Your task to perform on an android device: toggle pop-ups in chrome Image 0: 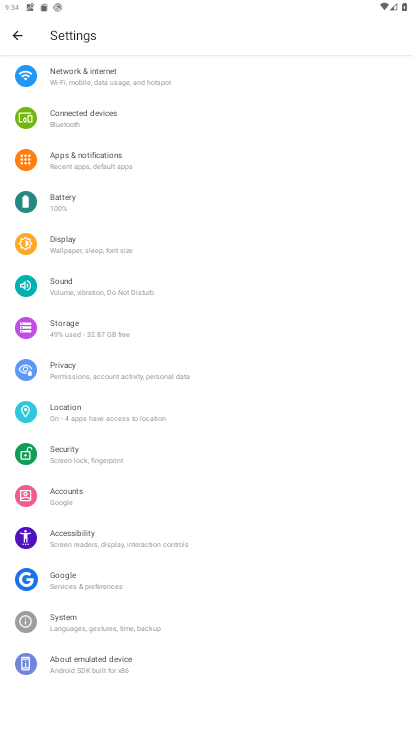
Step 0: press home button
Your task to perform on an android device: toggle pop-ups in chrome Image 1: 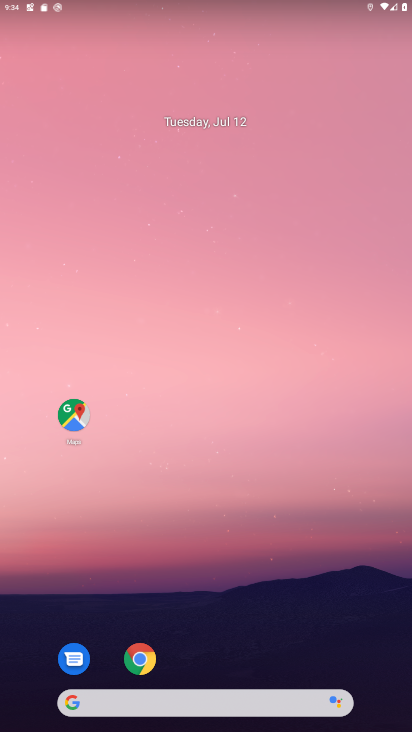
Step 1: drag from (234, 660) to (280, 153)
Your task to perform on an android device: toggle pop-ups in chrome Image 2: 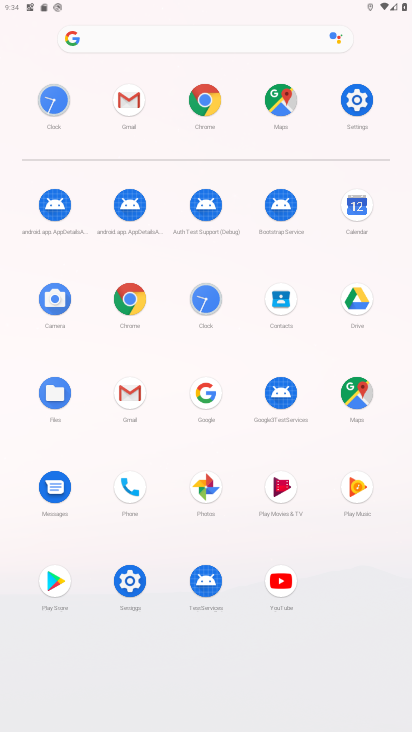
Step 2: click (125, 298)
Your task to perform on an android device: toggle pop-ups in chrome Image 3: 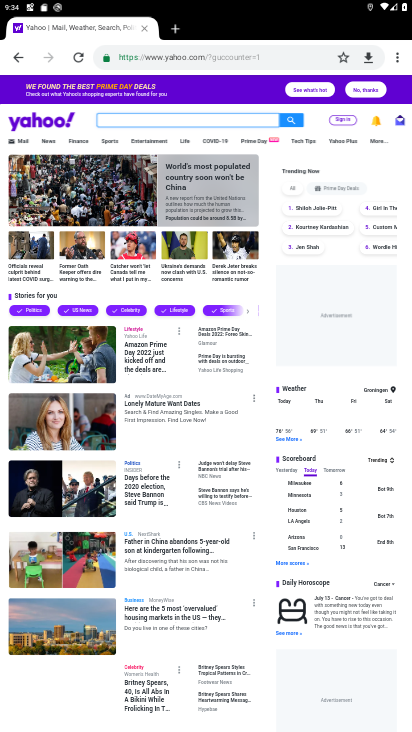
Step 3: drag from (395, 61) to (282, 384)
Your task to perform on an android device: toggle pop-ups in chrome Image 4: 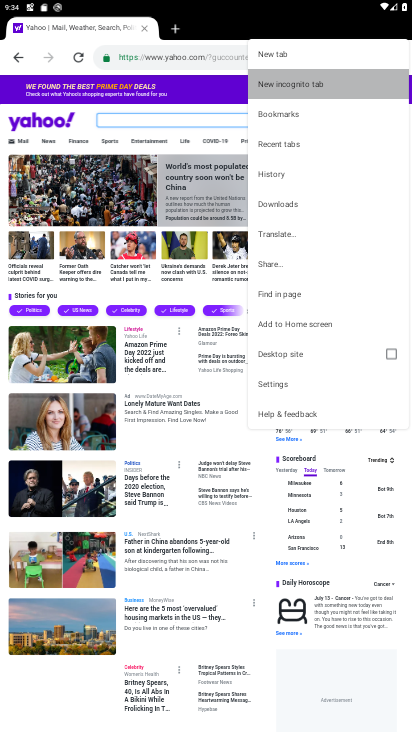
Step 4: drag from (394, 69) to (282, 384)
Your task to perform on an android device: toggle pop-ups in chrome Image 5: 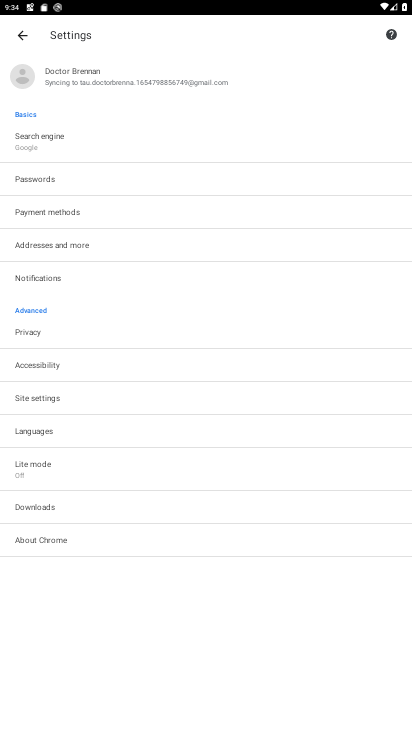
Step 5: click (64, 401)
Your task to perform on an android device: toggle pop-ups in chrome Image 6: 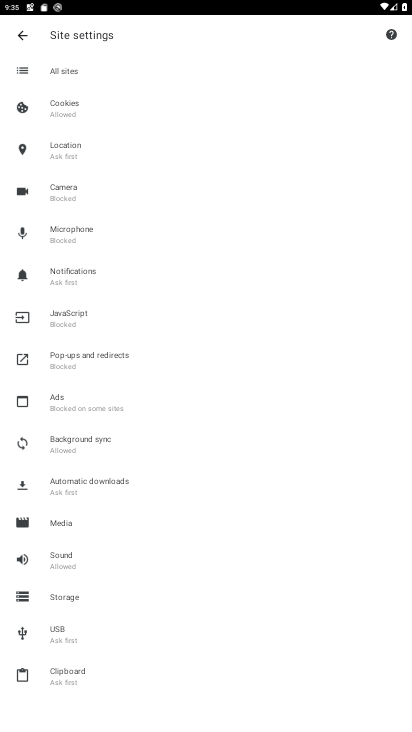
Step 6: click (54, 355)
Your task to perform on an android device: toggle pop-ups in chrome Image 7: 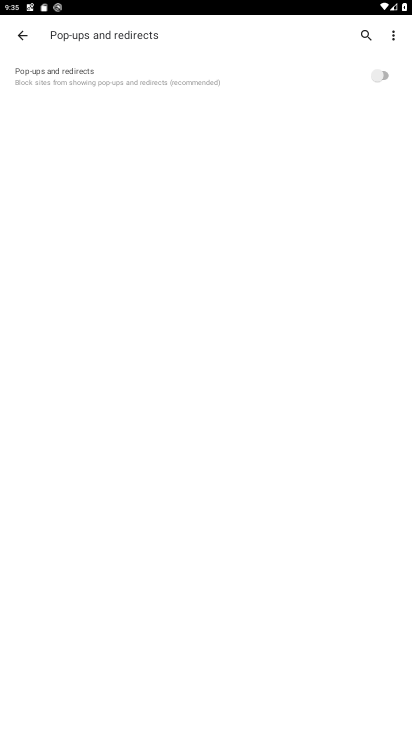
Step 7: click (380, 71)
Your task to perform on an android device: toggle pop-ups in chrome Image 8: 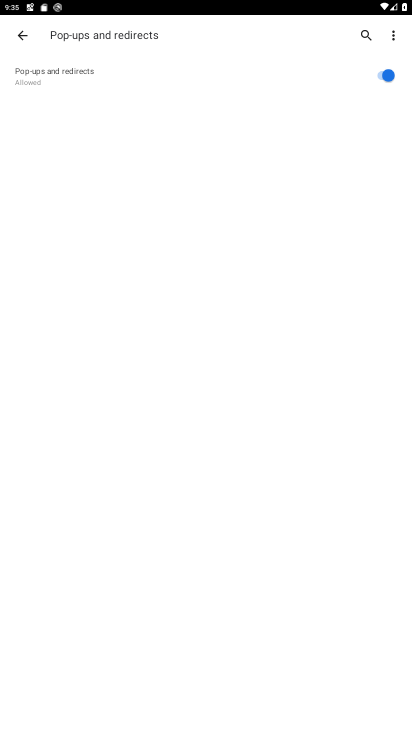
Step 8: task complete